Your task to perform on an android device: refresh tabs in the chrome app Image 0: 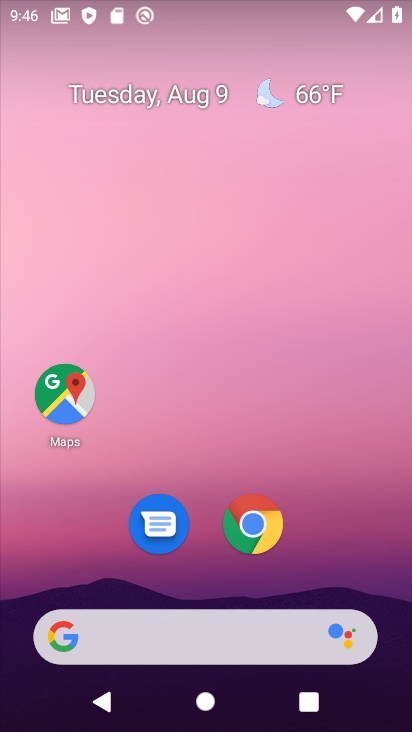
Step 0: click (256, 530)
Your task to perform on an android device: refresh tabs in the chrome app Image 1: 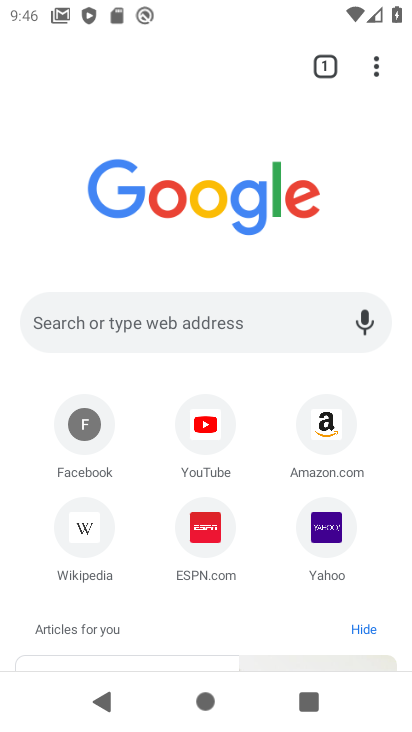
Step 1: click (365, 61)
Your task to perform on an android device: refresh tabs in the chrome app Image 2: 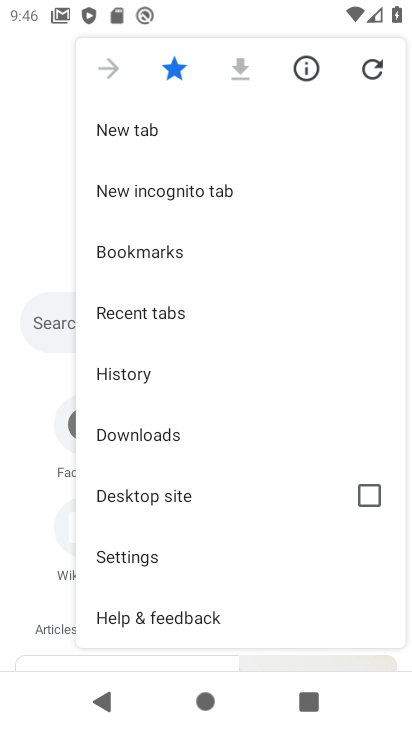
Step 2: click (365, 61)
Your task to perform on an android device: refresh tabs in the chrome app Image 3: 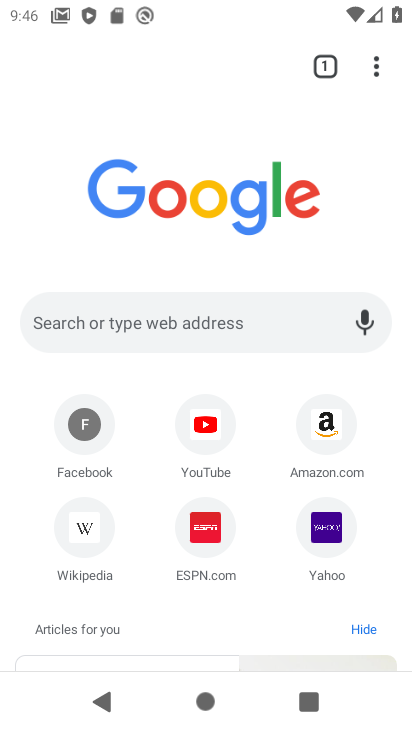
Step 3: task complete